Your task to perform on an android device: add a label to a message in the gmail app Image 0: 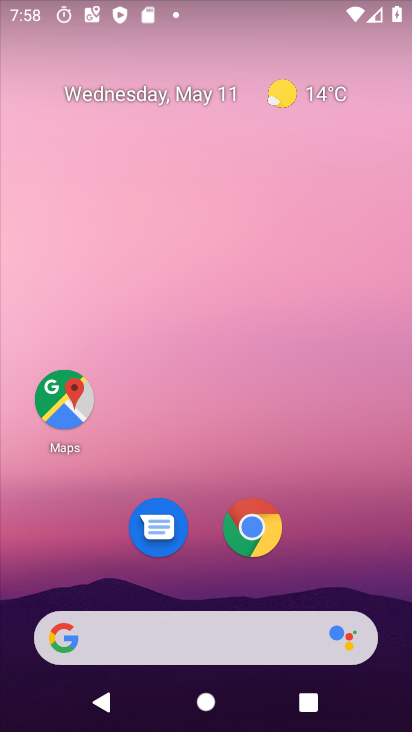
Step 0: drag from (226, 660) to (238, 213)
Your task to perform on an android device: add a label to a message in the gmail app Image 1: 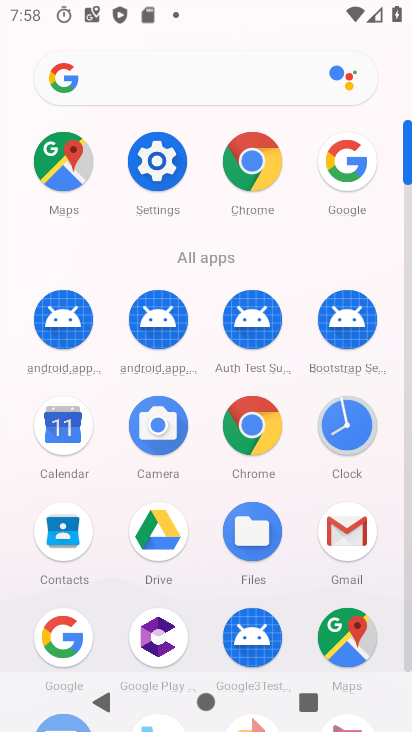
Step 1: click (358, 524)
Your task to perform on an android device: add a label to a message in the gmail app Image 2: 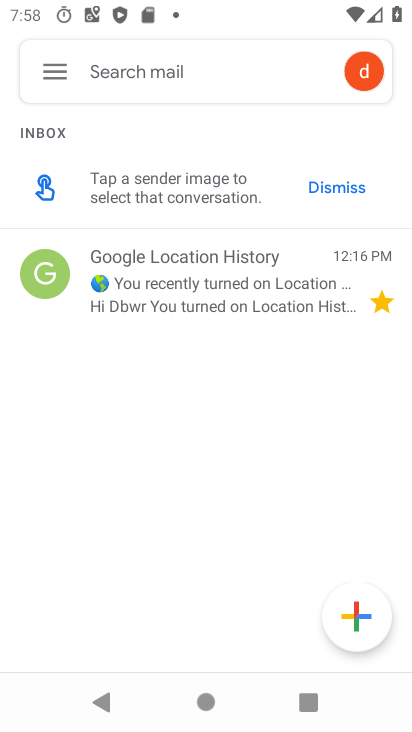
Step 2: click (171, 284)
Your task to perform on an android device: add a label to a message in the gmail app Image 3: 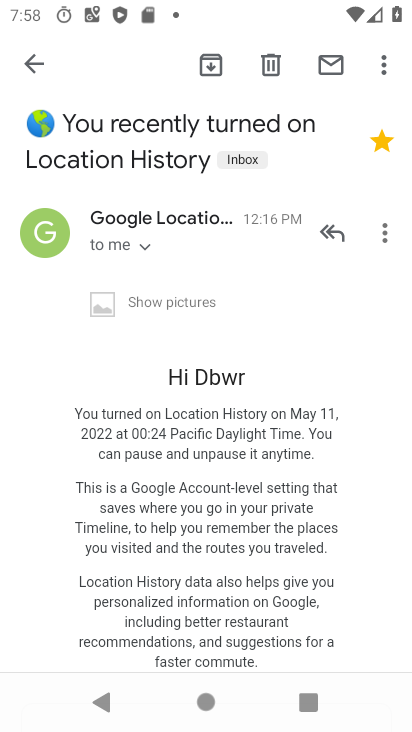
Step 3: click (377, 61)
Your task to perform on an android device: add a label to a message in the gmail app Image 4: 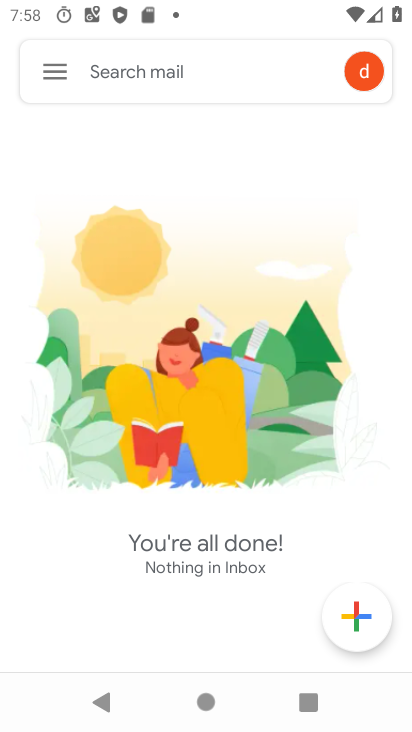
Step 4: click (53, 75)
Your task to perform on an android device: add a label to a message in the gmail app Image 5: 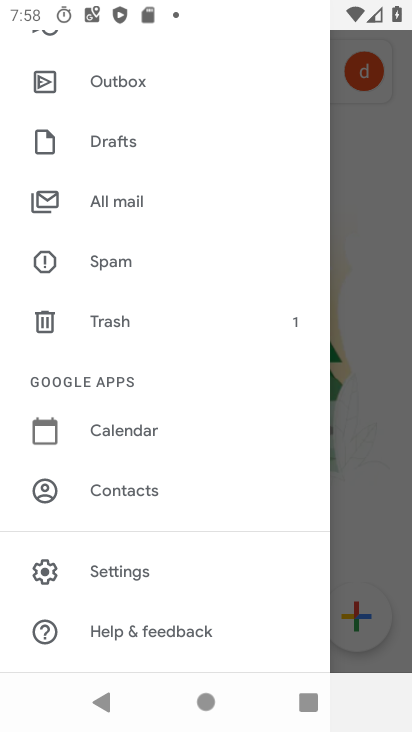
Step 5: click (131, 200)
Your task to perform on an android device: add a label to a message in the gmail app Image 6: 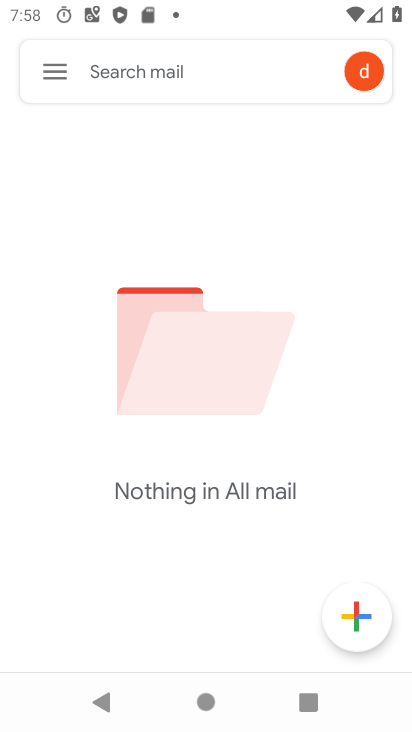
Step 6: task complete